Your task to perform on an android device: turn off wifi Image 0: 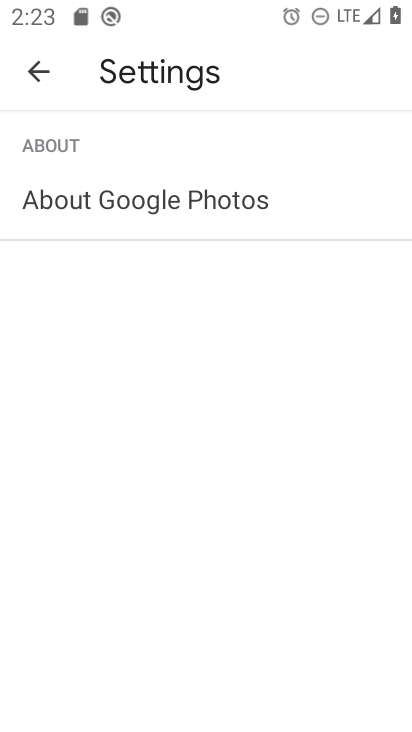
Step 0: press home button
Your task to perform on an android device: turn off wifi Image 1: 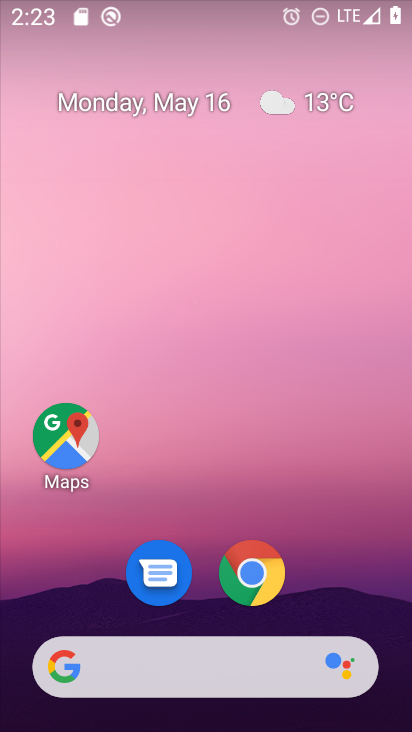
Step 1: drag from (225, 641) to (145, 36)
Your task to perform on an android device: turn off wifi Image 2: 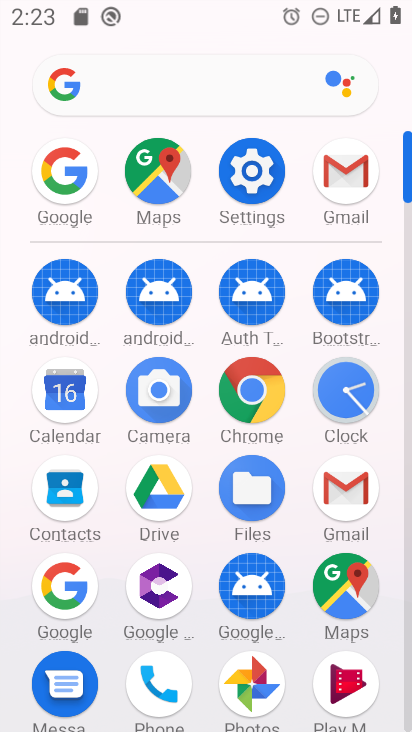
Step 2: click (276, 153)
Your task to perform on an android device: turn off wifi Image 3: 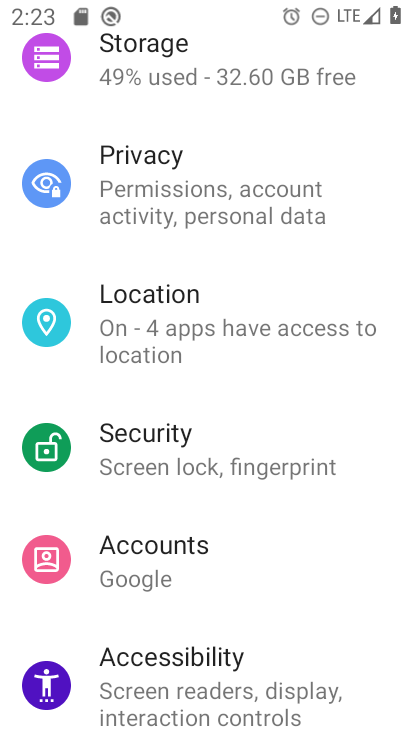
Step 3: drag from (203, 52) to (224, 326)
Your task to perform on an android device: turn off wifi Image 4: 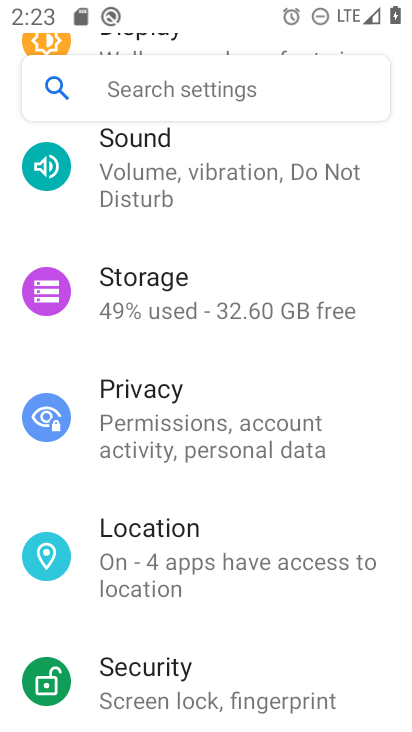
Step 4: drag from (179, 247) to (214, 589)
Your task to perform on an android device: turn off wifi Image 5: 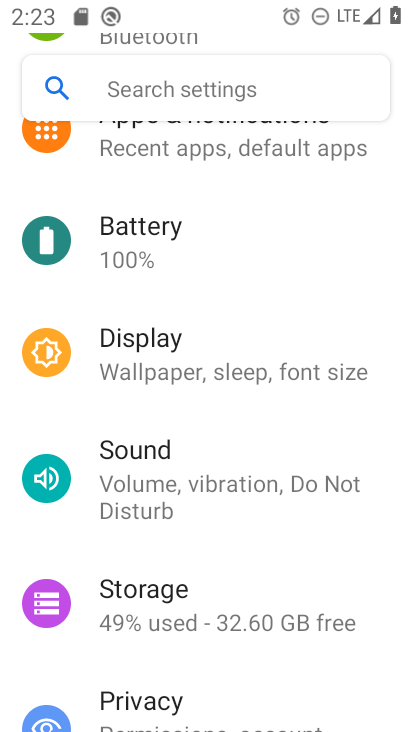
Step 5: drag from (173, 326) to (167, 726)
Your task to perform on an android device: turn off wifi Image 6: 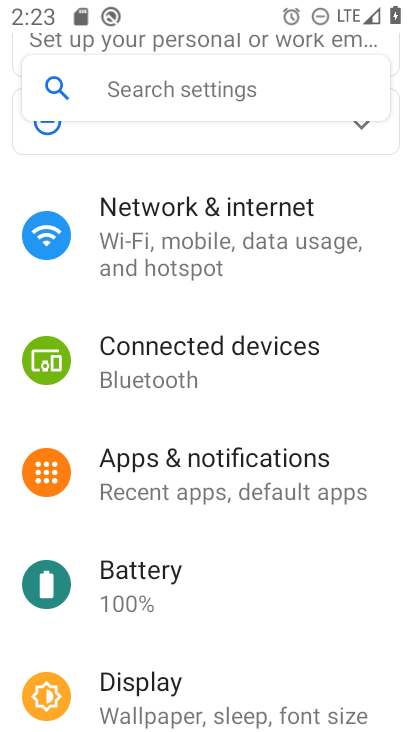
Step 6: click (178, 205)
Your task to perform on an android device: turn off wifi Image 7: 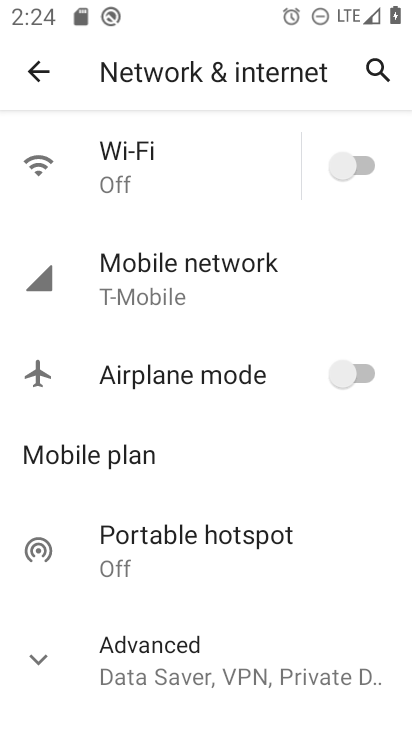
Step 7: task complete